Your task to perform on an android device: open app "Google Play Games" (install if not already installed) Image 0: 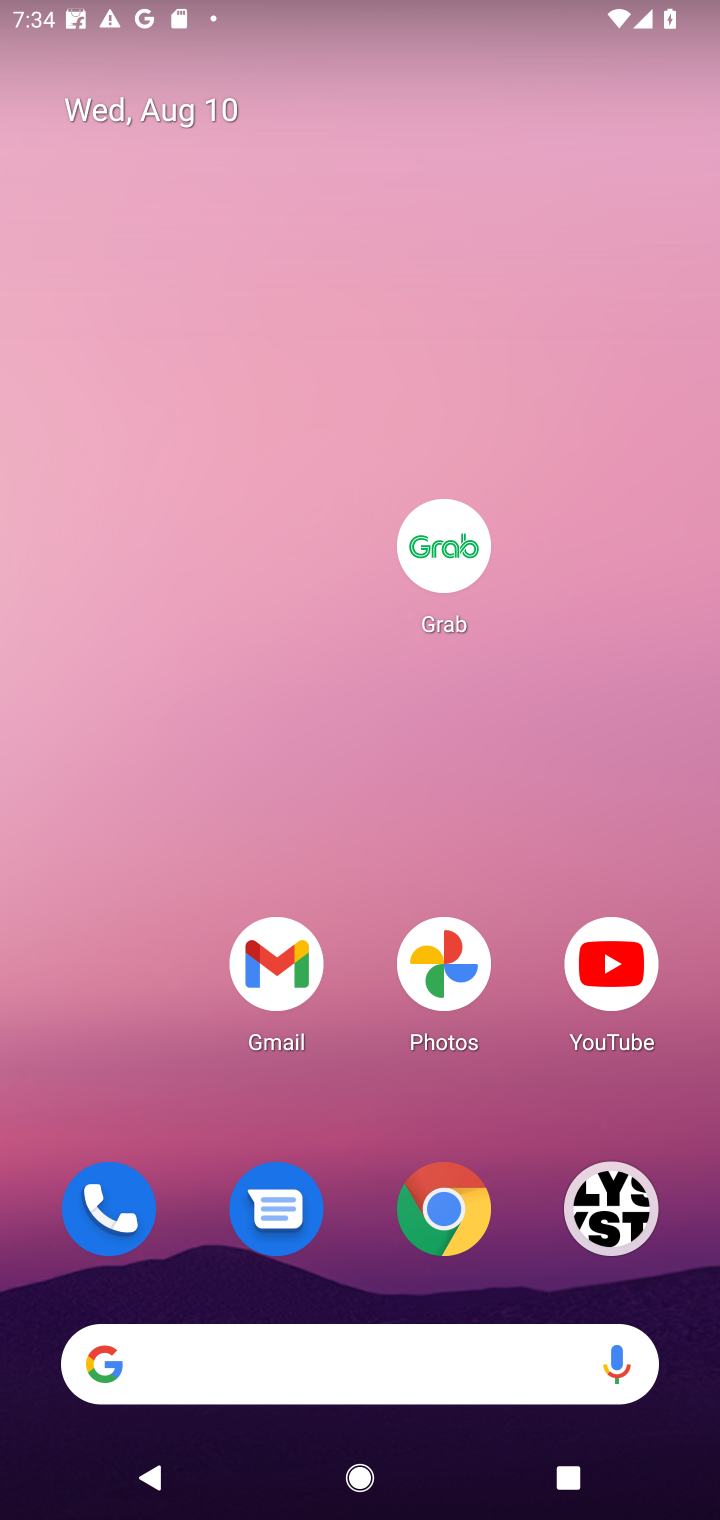
Step 0: drag from (365, 1301) to (349, 232)
Your task to perform on an android device: open app "Google Play Games" (install if not already installed) Image 1: 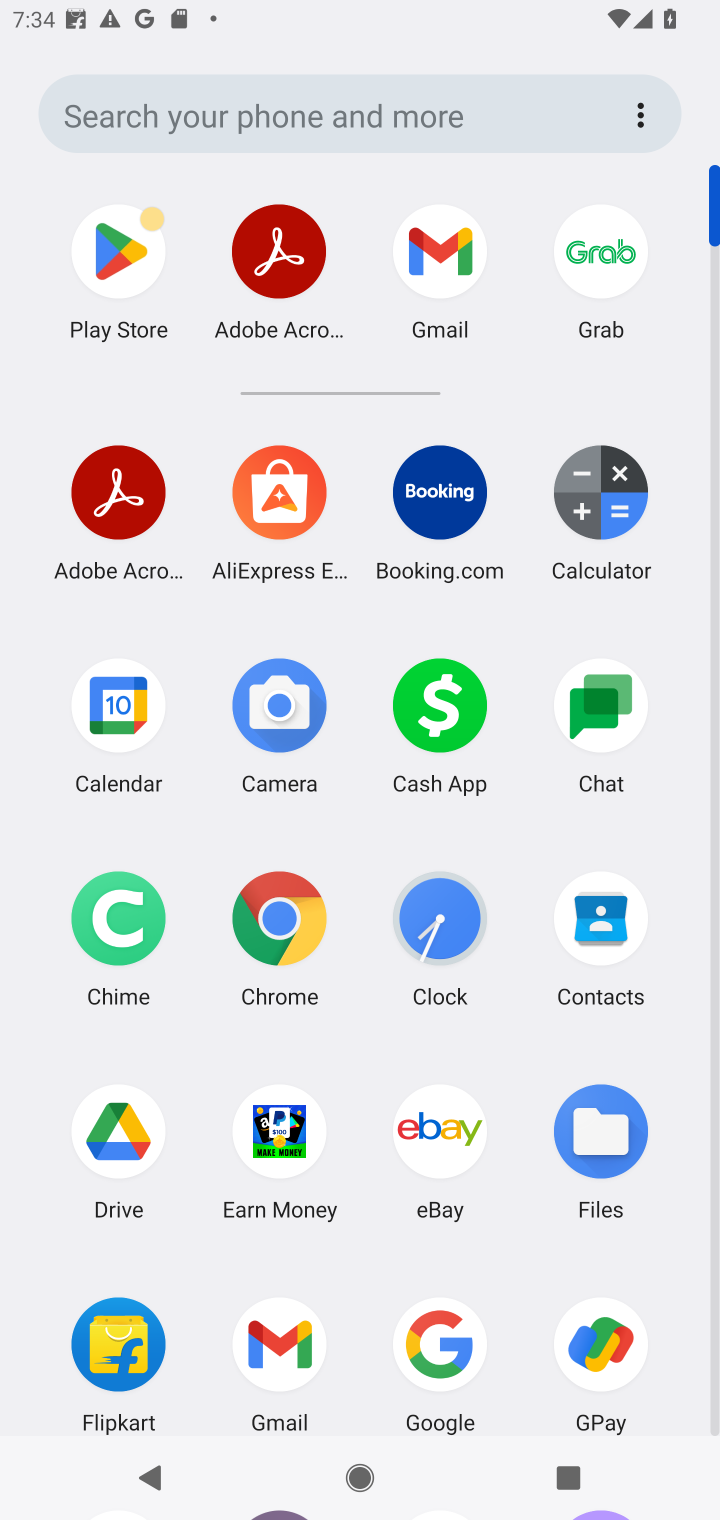
Step 1: click (159, 302)
Your task to perform on an android device: open app "Google Play Games" (install if not already installed) Image 2: 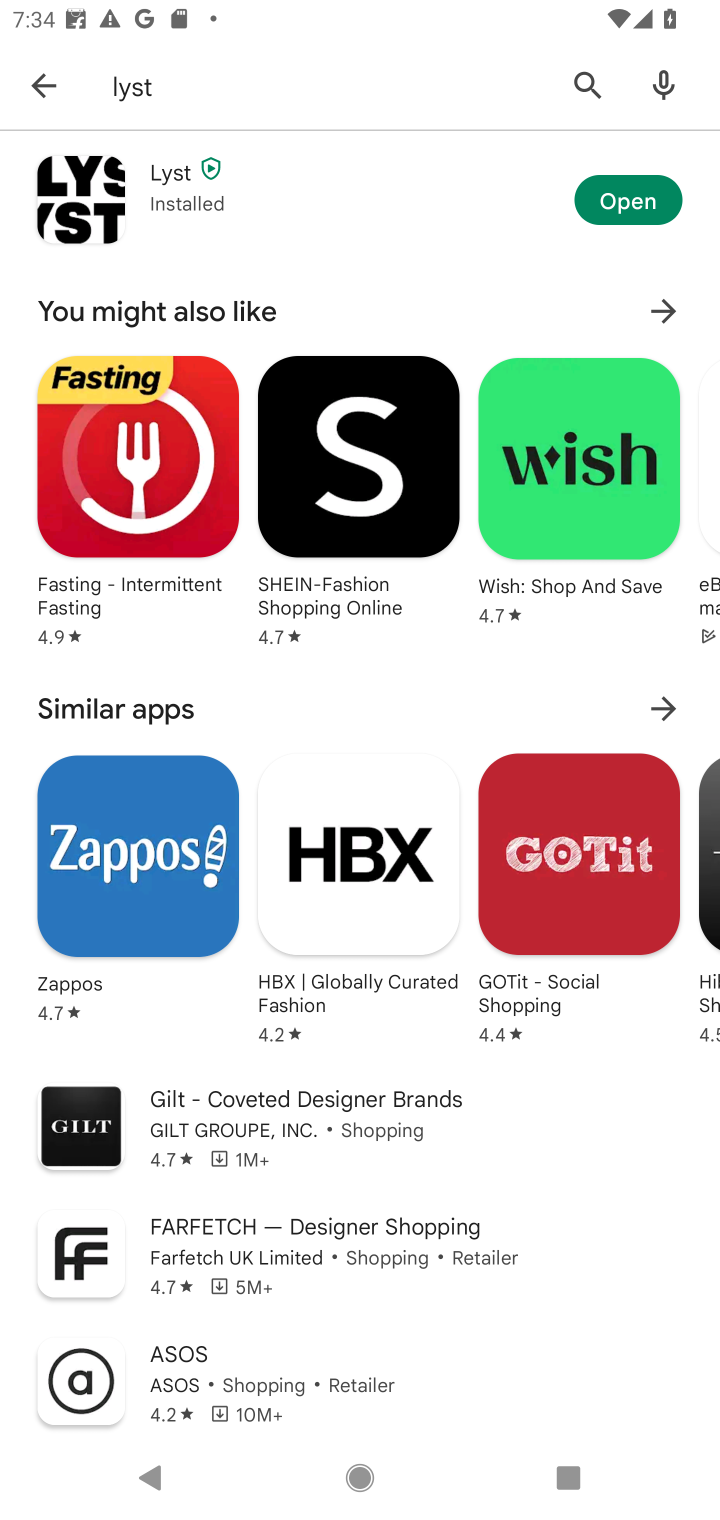
Step 2: click (570, 100)
Your task to perform on an android device: open app "Google Play Games" (install if not already installed) Image 3: 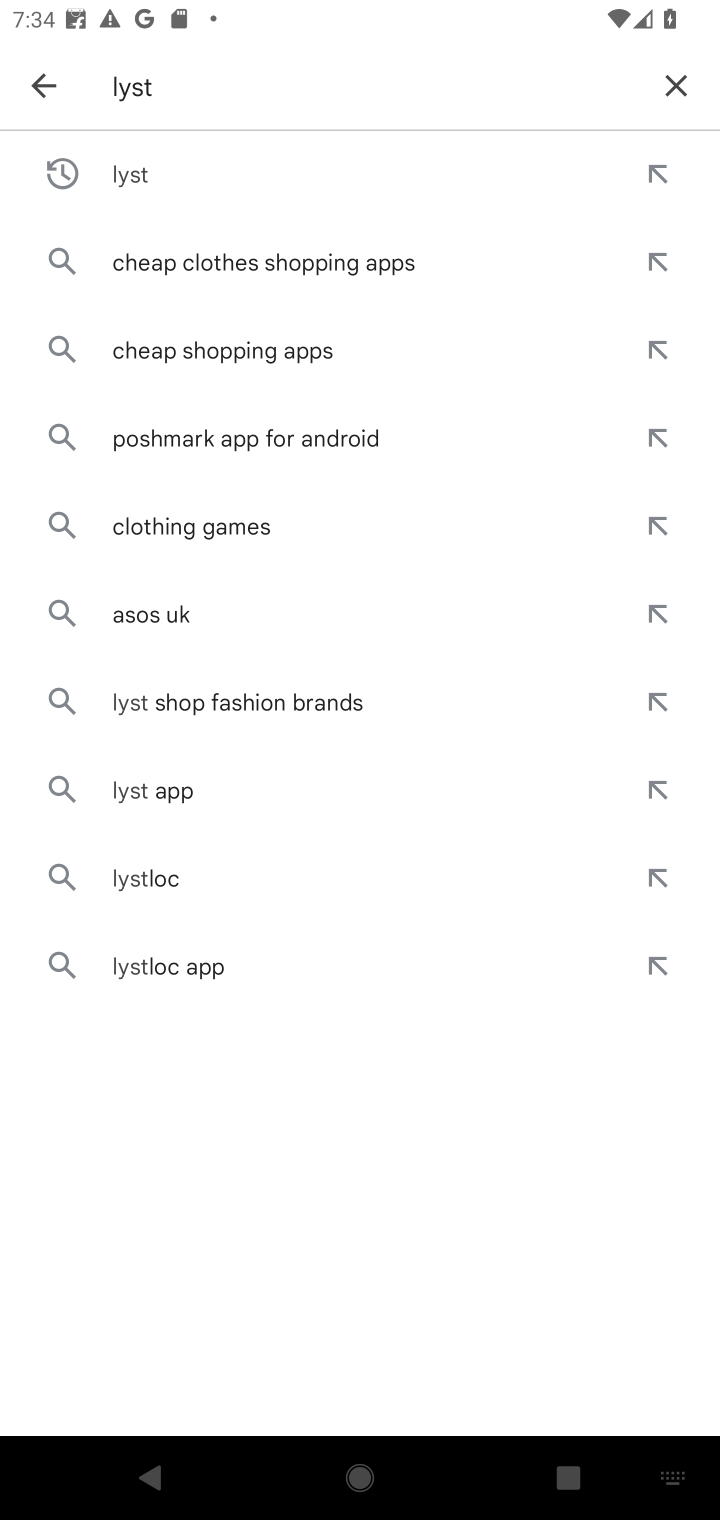
Step 3: click (683, 99)
Your task to perform on an android device: open app "Google Play Games" (install if not already installed) Image 4: 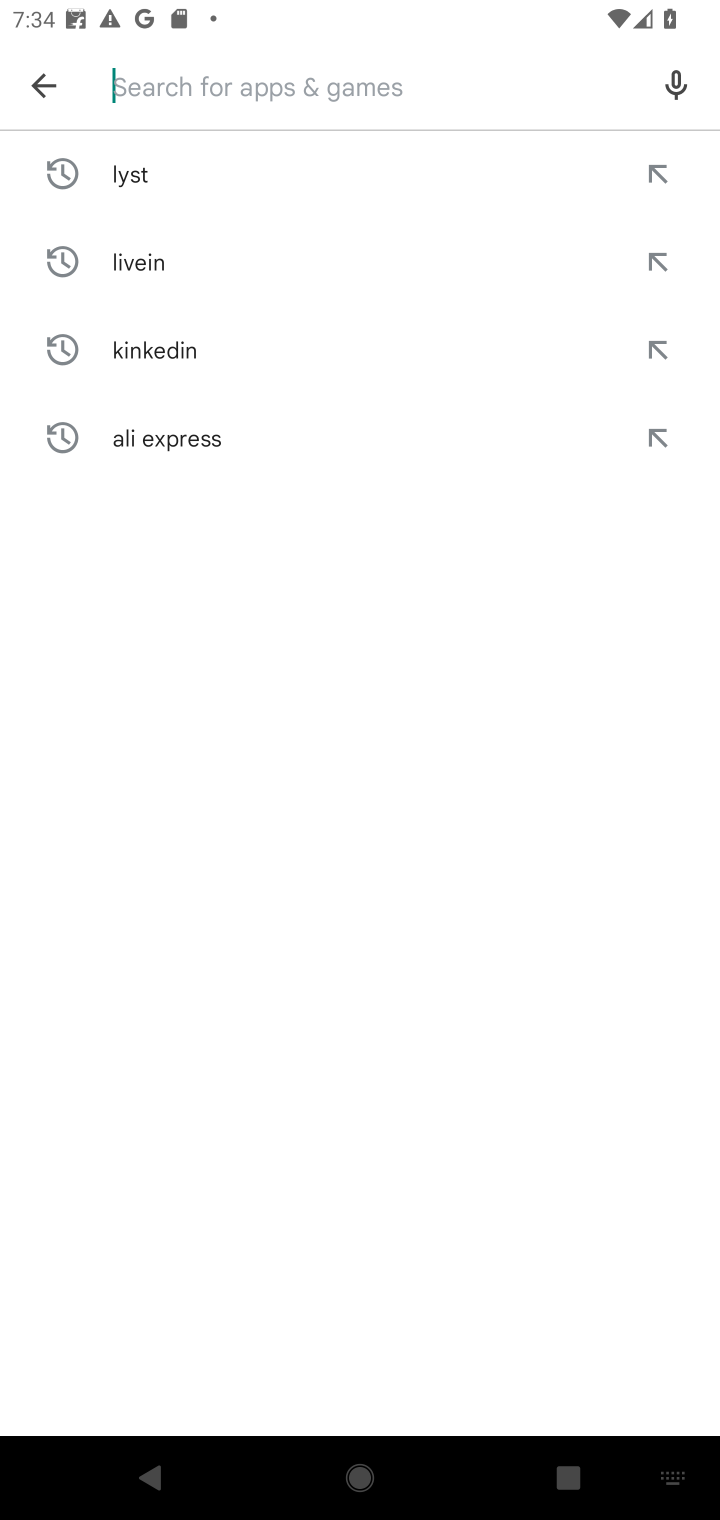
Step 4: type "google play game"
Your task to perform on an android device: open app "Google Play Games" (install if not already installed) Image 5: 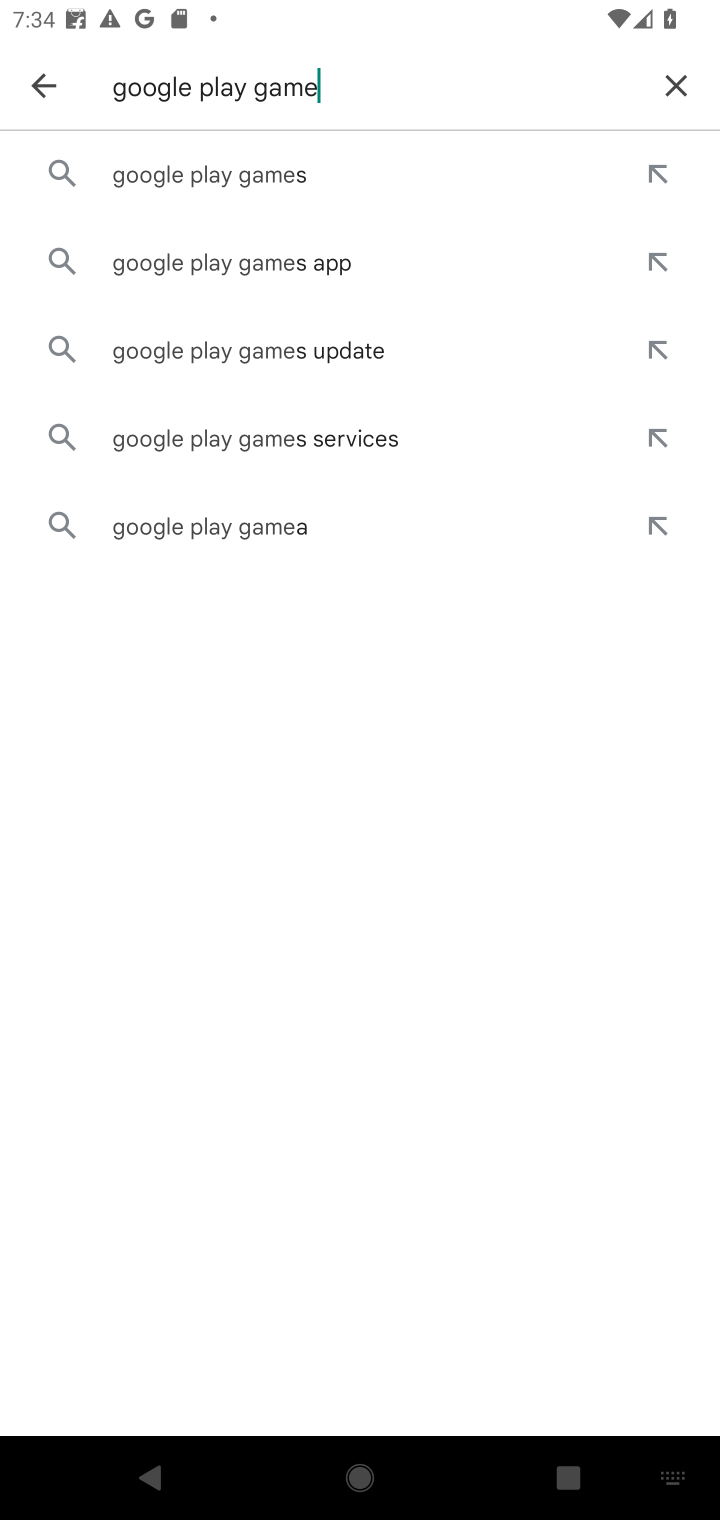
Step 5: click (94, 183)
Your task to perform on an android device: open app "Google Play Games" (install if not already installed) Image 6: 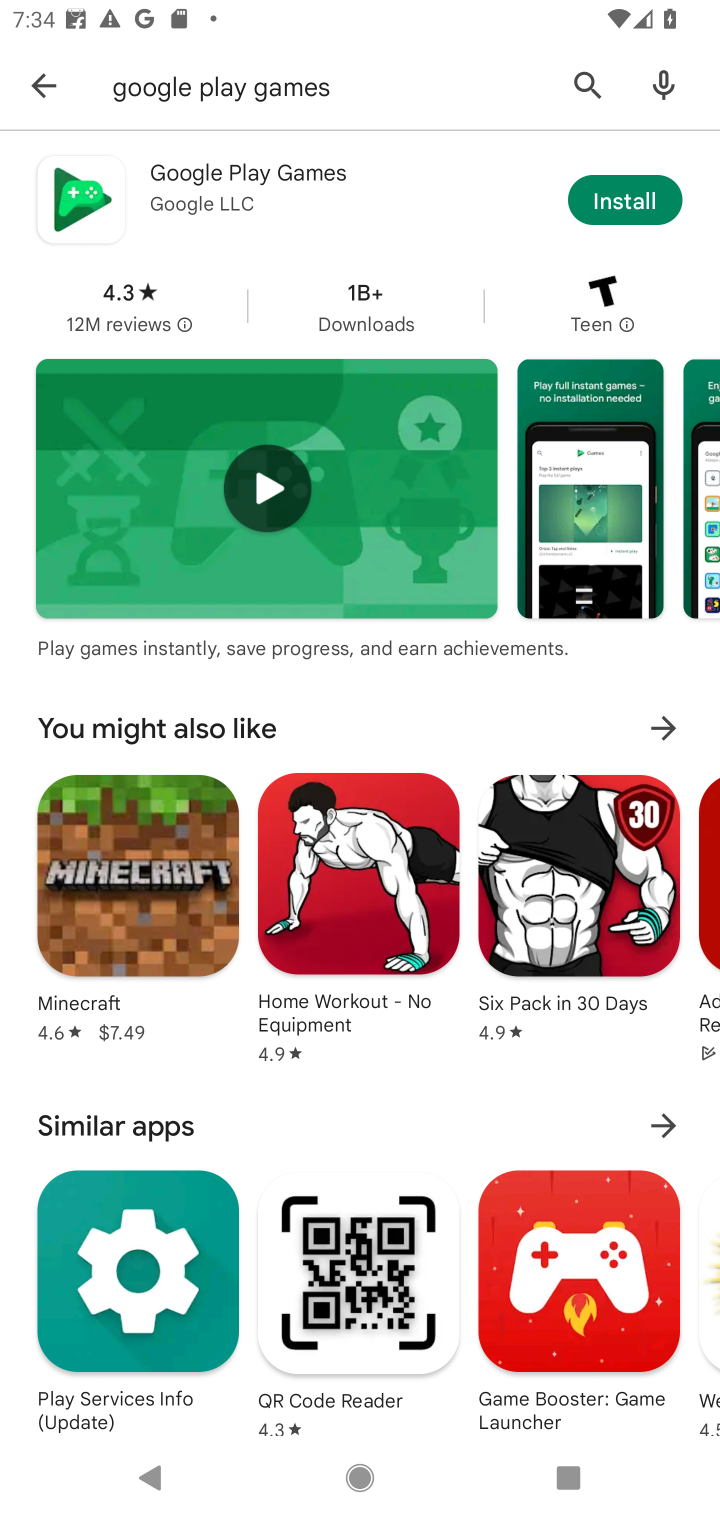
Step 6: click (624, 213)
Your task to perform on an android device: open app "Google Play Games" (install if not already installed) Image 7: 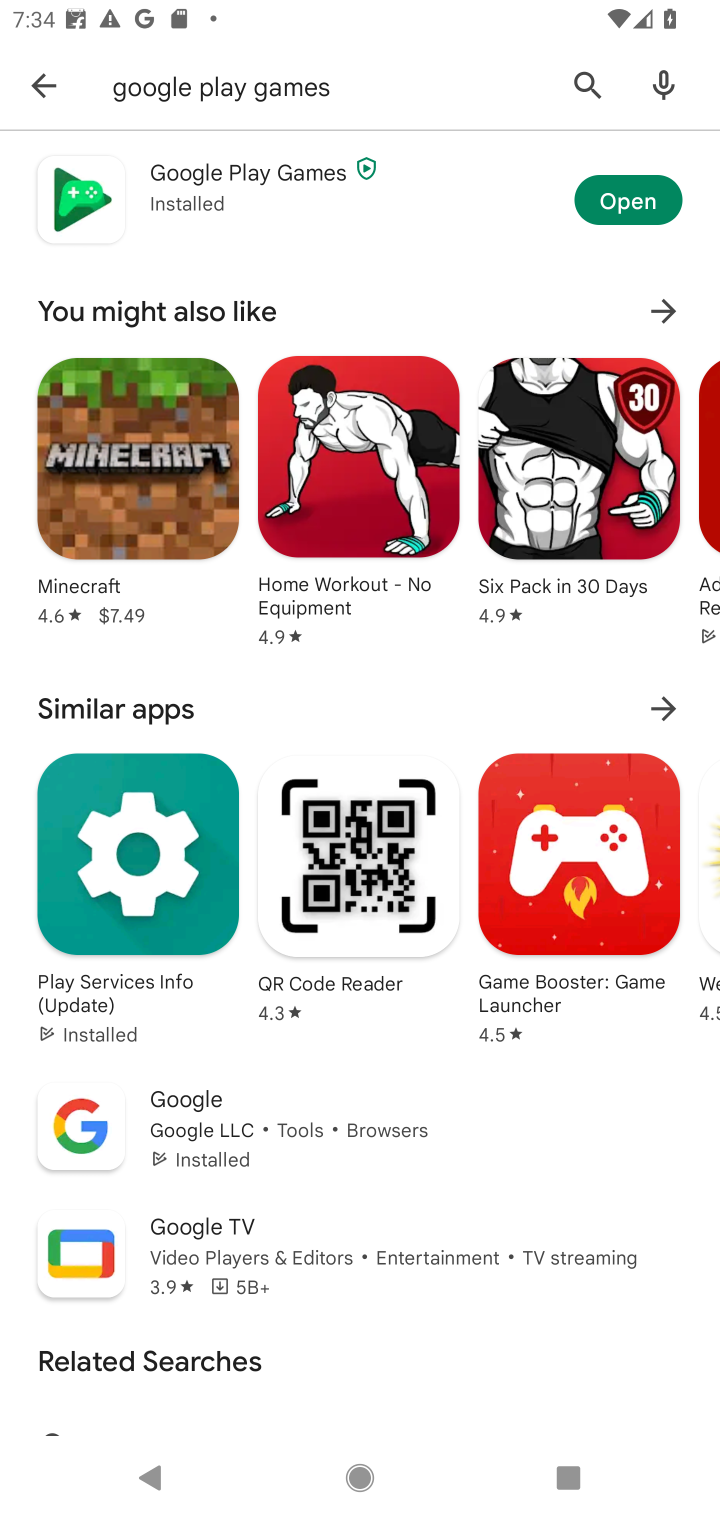
Step 7: task complete